Your task to perform on an android device: Go to Yahoo.com Image 0: 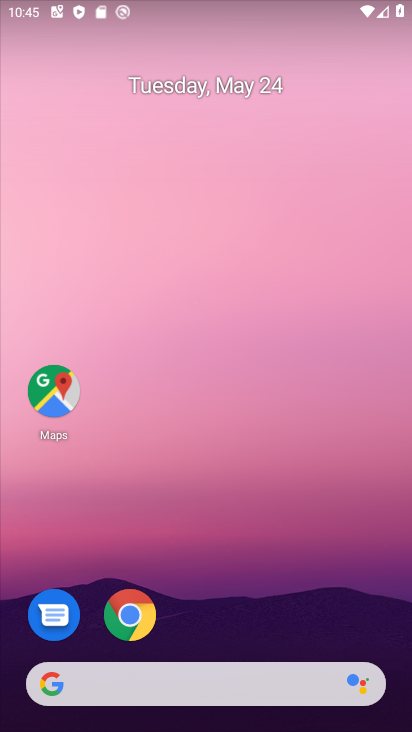
Step 0: click (134, 613)
Your task to perform on an android device: Go to Yahoo.com Image 1: 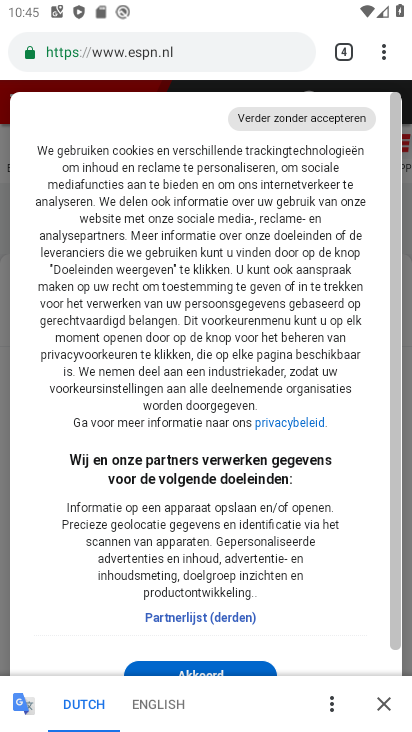
Step 1: click (345, 43)
Your task to perform on an android device: Go to Yahoo.com Image 2: 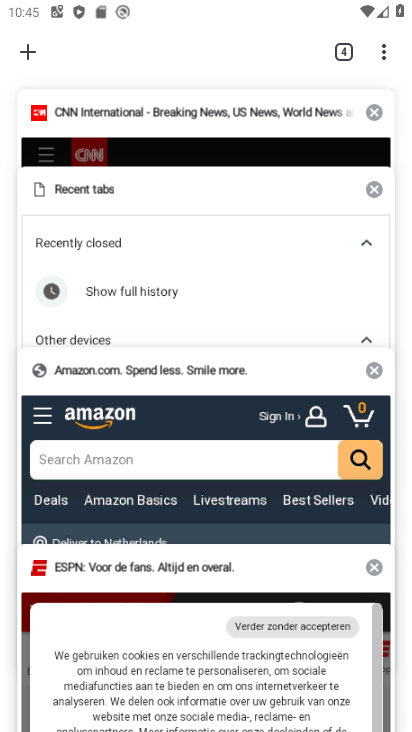
Step 2: click (37, 48)
Your task to perform on an android device: Go to Yahoo.com Image 3: 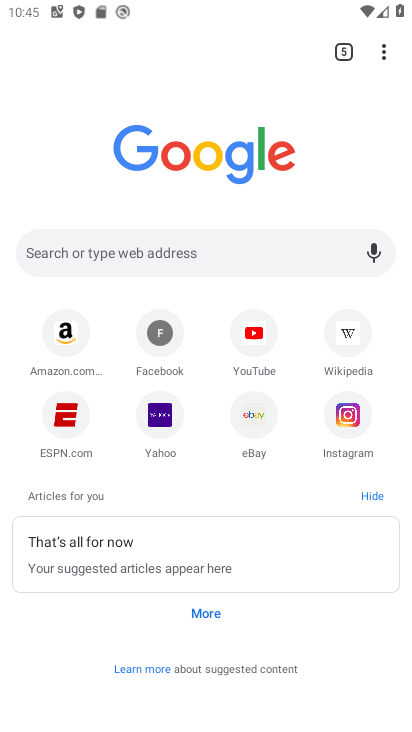
Step 3: click (165, 421)
Your task to perform on an android device: Go to Yahoo.com Image 4: 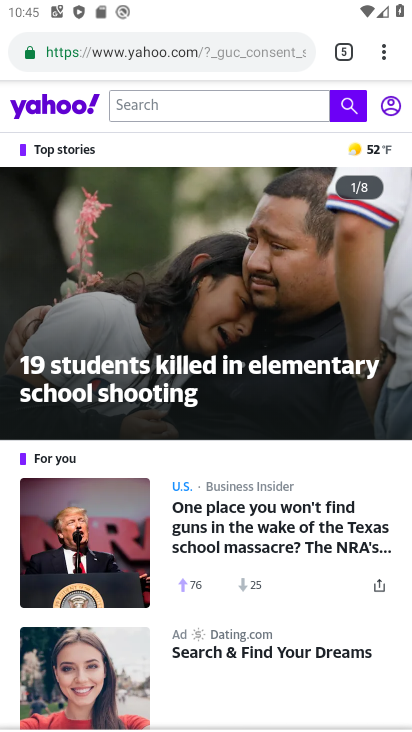
Step 4: task complete